Your task to perform on an android device: turn on improve location accuracy Image 0: 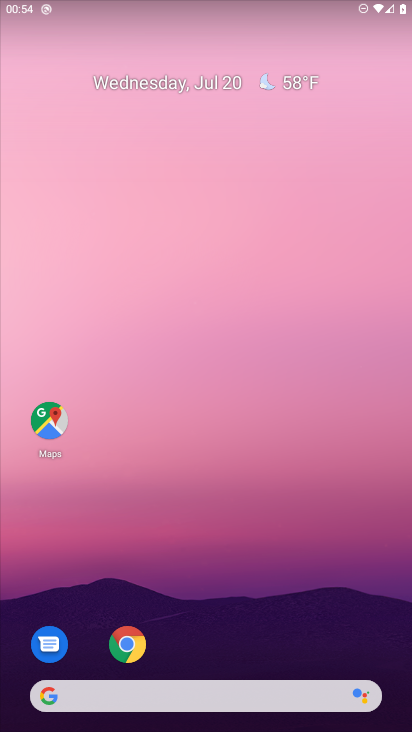
Step 0: drag from (31, 704) to (216, 38)
Your task to perform on an android device: turn on improve location accuracy Image 1: 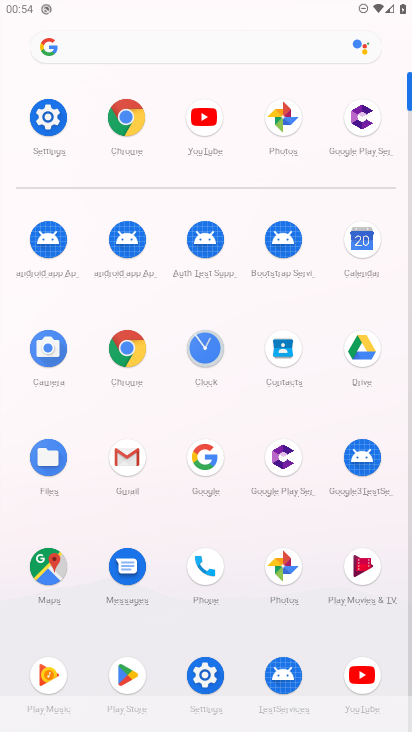
Step 1: click (202, 677)
Your task to perform on an android device: turn on improve location accuracy Image 2: 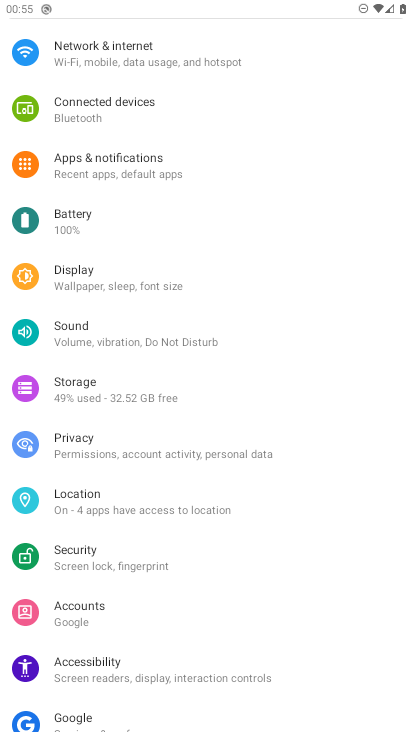
Step 2: click (90, 496)
Your task to perform on an android device: turn on improve location accuracy Image 3: 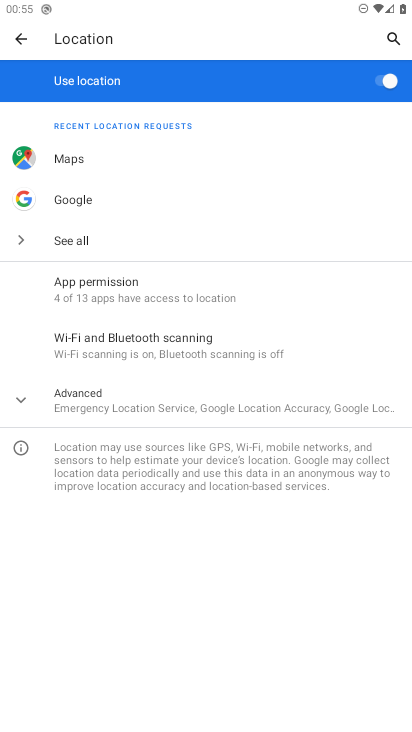
Step 3: click (116, 388)
Your task to perform on an android device: turn on improve location accuracy Image 4: 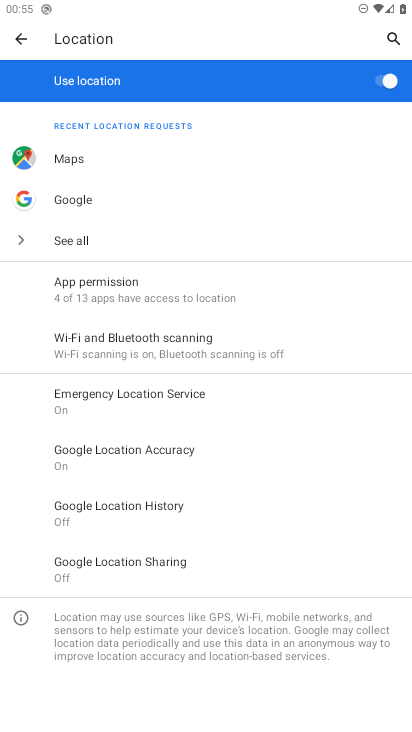
Step 4: task complete